Your task to perform on an android device: Play the last video I watched on Youtube Image 0: 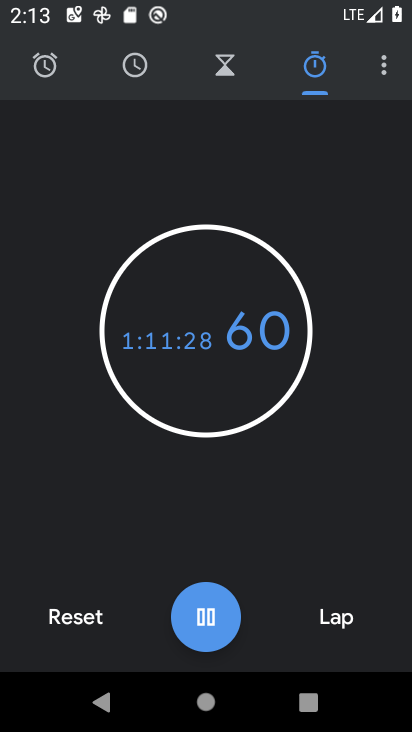
Step 0: press home button
Your task to perform on an android device: Play the last video I watched on Youtube Image 1: 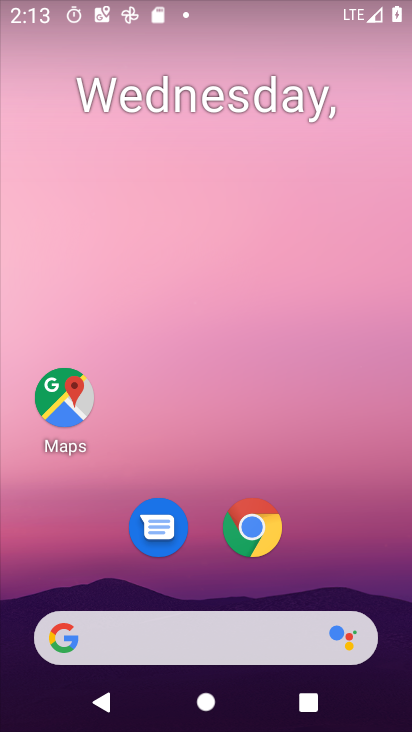
Step 1: drag from (353, 580) to (384, 7)
Your task to perform on an android device: Play the last video I watched on Youtube Image 2: 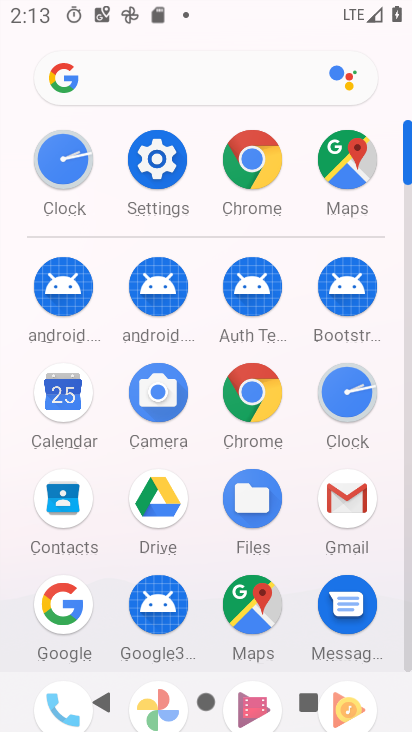
Step 2: drag from (310, 664) to (326, 97)
Your task to perform on an android device: Play the last video I watched on Youtube Image 3: 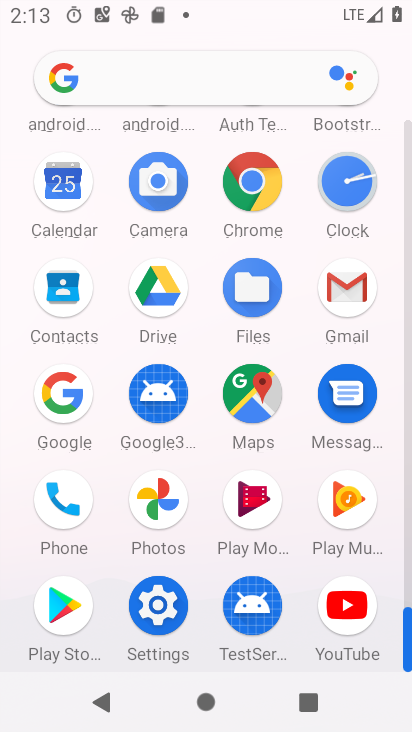
Step 3: click (343, 607)
Your task to perform on an android device: Play the last video I watched on Youtube Image 4: 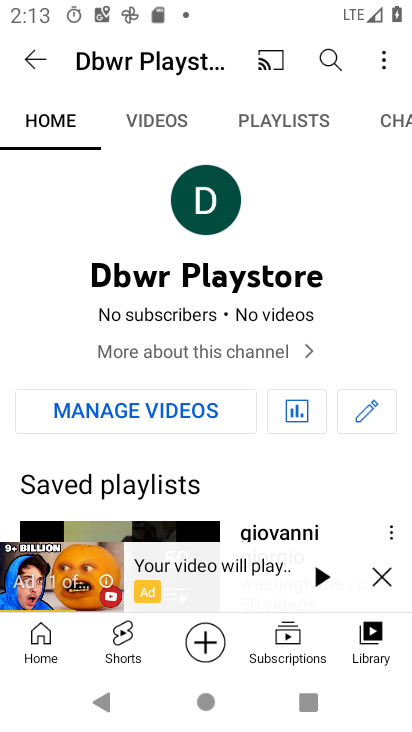
Step 4: click (374, 644)
Your task to perform on an android device: Play the last video I watched on Youtube Image 5: 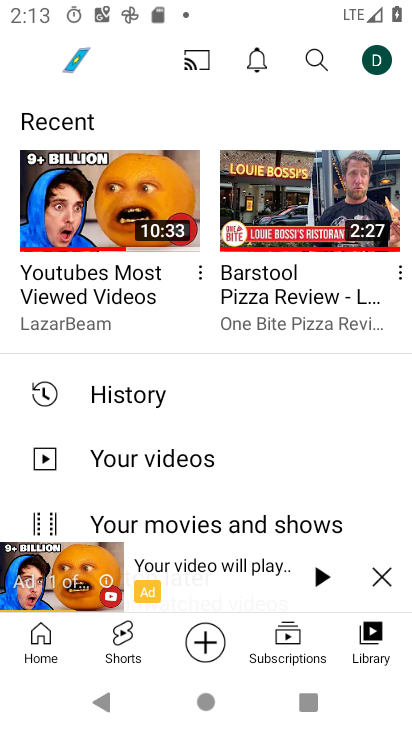
Step 5: click (155, 214)
Your task to perform on an android device: Play the last video I watched on Youtube Image 6: 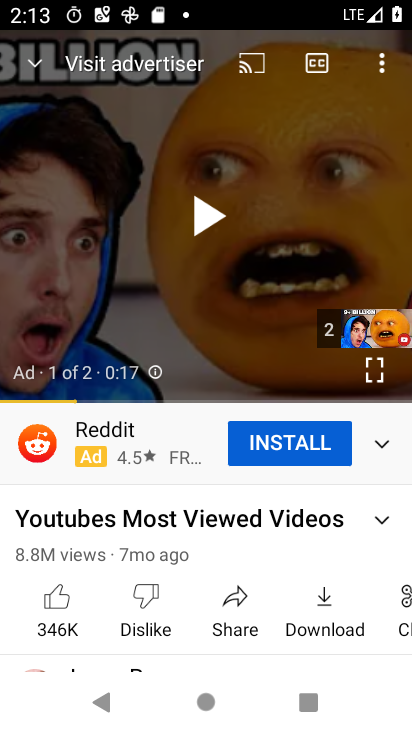
Step 6: task complete